Your task to perform on an android device: turn off airplane mode Image 0: 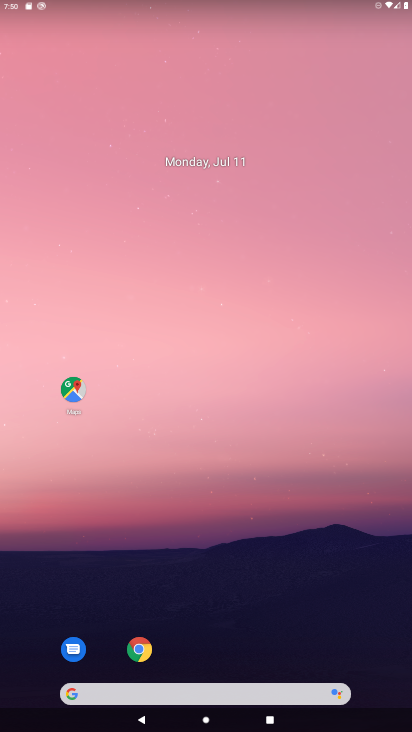
Step 0: drag from (184, 694) to (235, 145)
Your task to perform on an android device: turn off airplane mode Image 1: 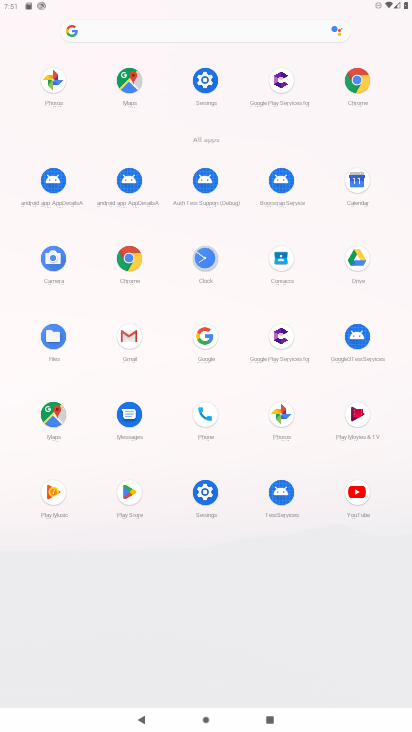
Step 1: click (204, 81)
Your task to perform on an android device: turn off airplane mode Image 2: 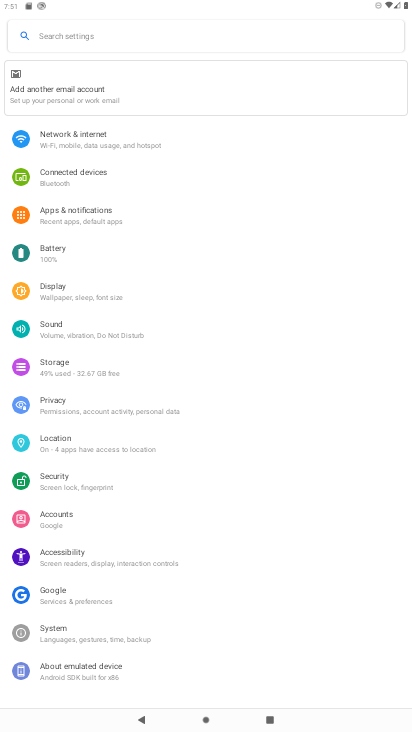
Step 2: click (77, 145)
Your task to perform on an android device: turn off airplane mode Image 3: 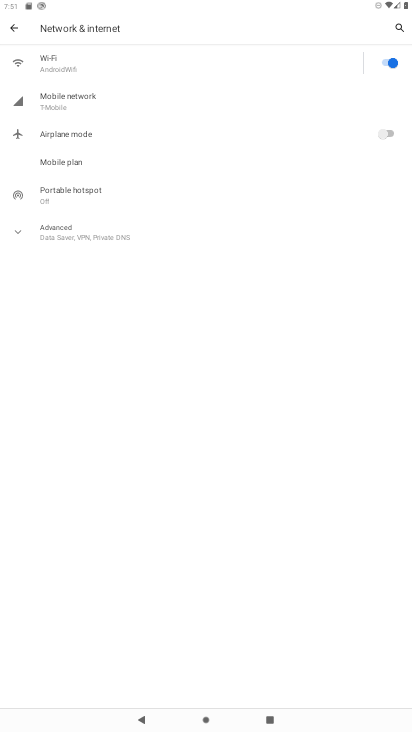
Step 3: click (394, 56)
Your task to perform on an android device: turn off airplane mode Image 4: 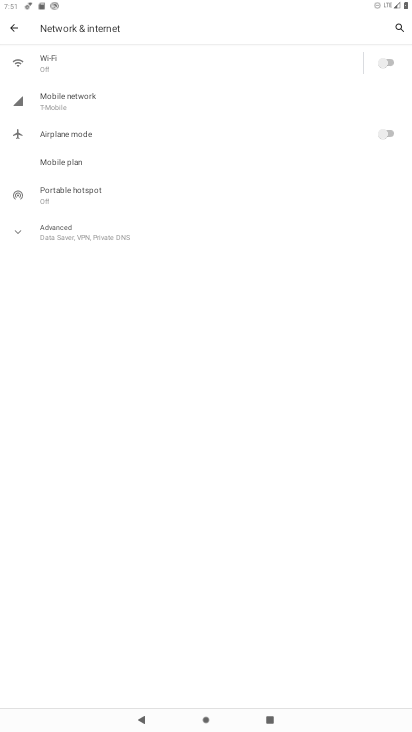
Step 4: task complete